Your task to perform on an android device: How much does a 2 bedroom apartment rent for in San Francisco? Image 0: 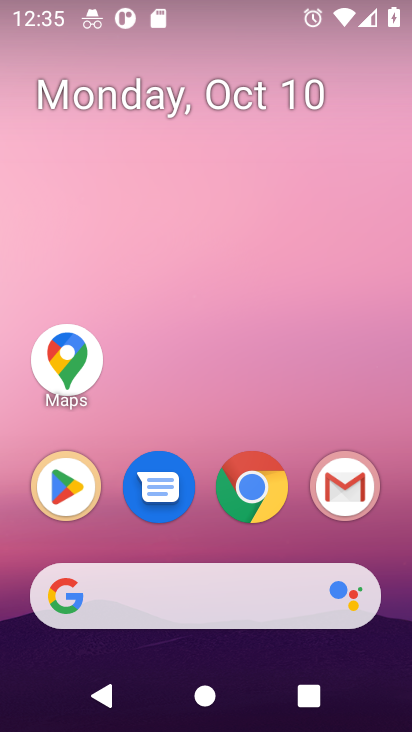
Step 0: click (252, 489)
Your task to perform on an android device: How much does a 2 bedroom apartment rent for in San Francisco? Image 1: 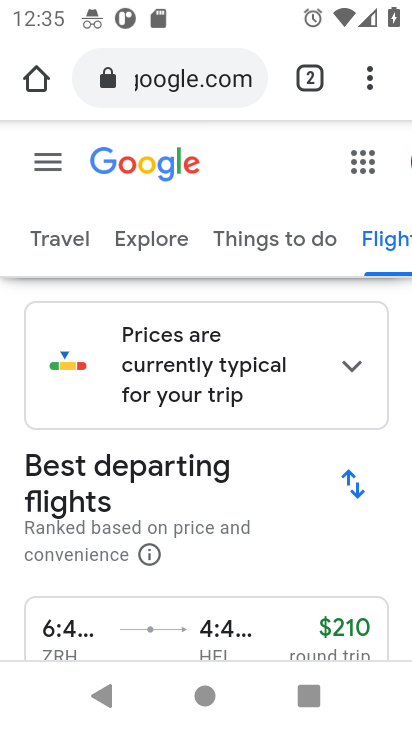
Step 1: click (168, 83)
Your task to perform on an android device: How much does a 2 bedroom apartment rent for in San Francisco? Image 2: 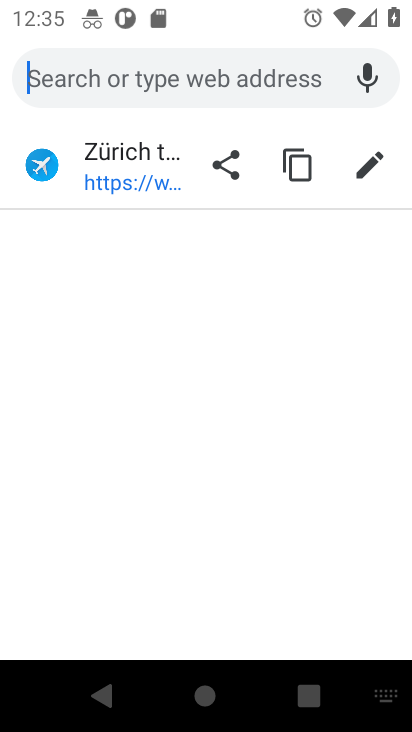
Step 2: type "2 bedroom rent in san francisco"
Your task to perform on an android device: How much does a 2 bedroom apartment rent for in San Francisco? Image 3: 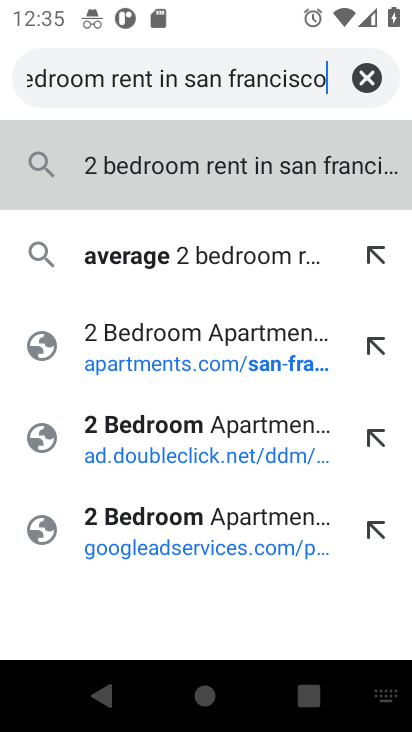
Step 3: type ""
Your task to perform on an android device: How much does a 2 bedroom apartment rent for in San Francisco? Image 4: 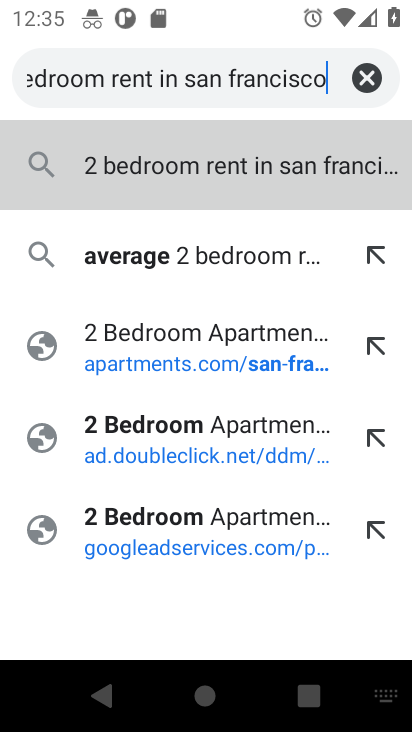
Step 4: press enter
Your task to perform on an android device: How much does a 2 bedroom apartment rent for in San Francisco? Image 5: 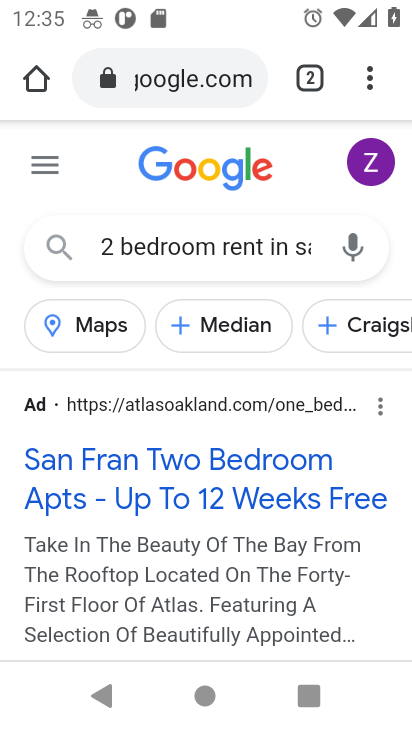
Step 5: drag from (245, 620) to (241, 203)
Your task to perform on an android device: How much does a 2 bedroom apartment rent for in San Francisco? Image 6: 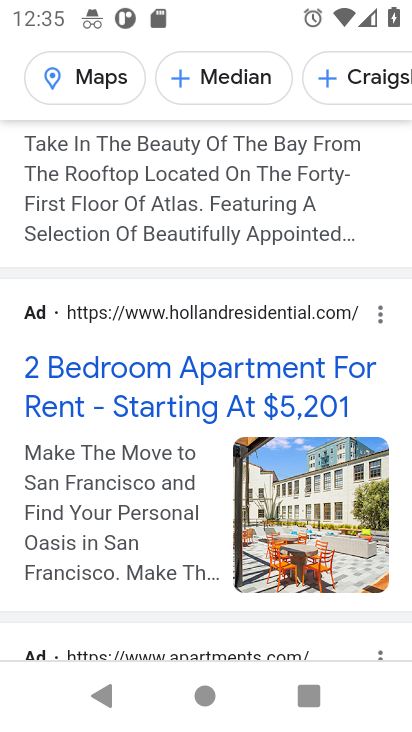
Step 6: drag from (117, 545) to (121, 299)
Your task to perform on an android device: How much does a 2 bedroom apartment rent for in San Francisco? Image 7: 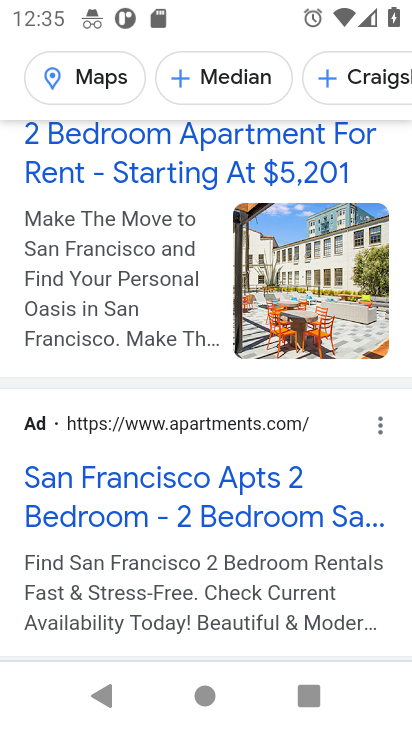
Step 7: click (141, 484)
Your task to perform on an android device: How much does a 2 bedroom apartment rent for in San Francisco? Image 8: 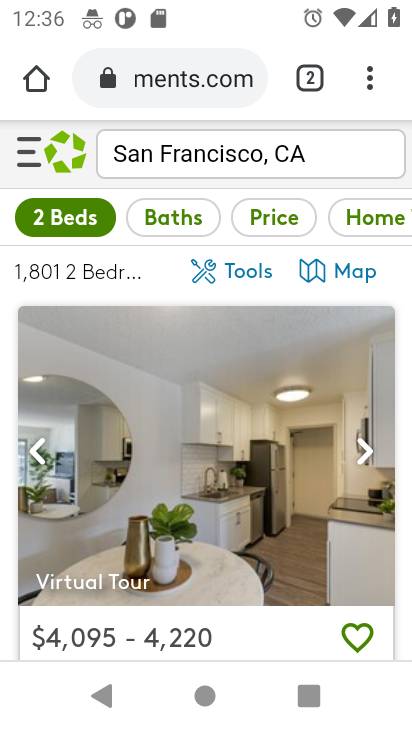
Step 8: task complete